Your task to perform on an android device: Add "usb-a" to the cart on amazon, then select checkout. Image 0: 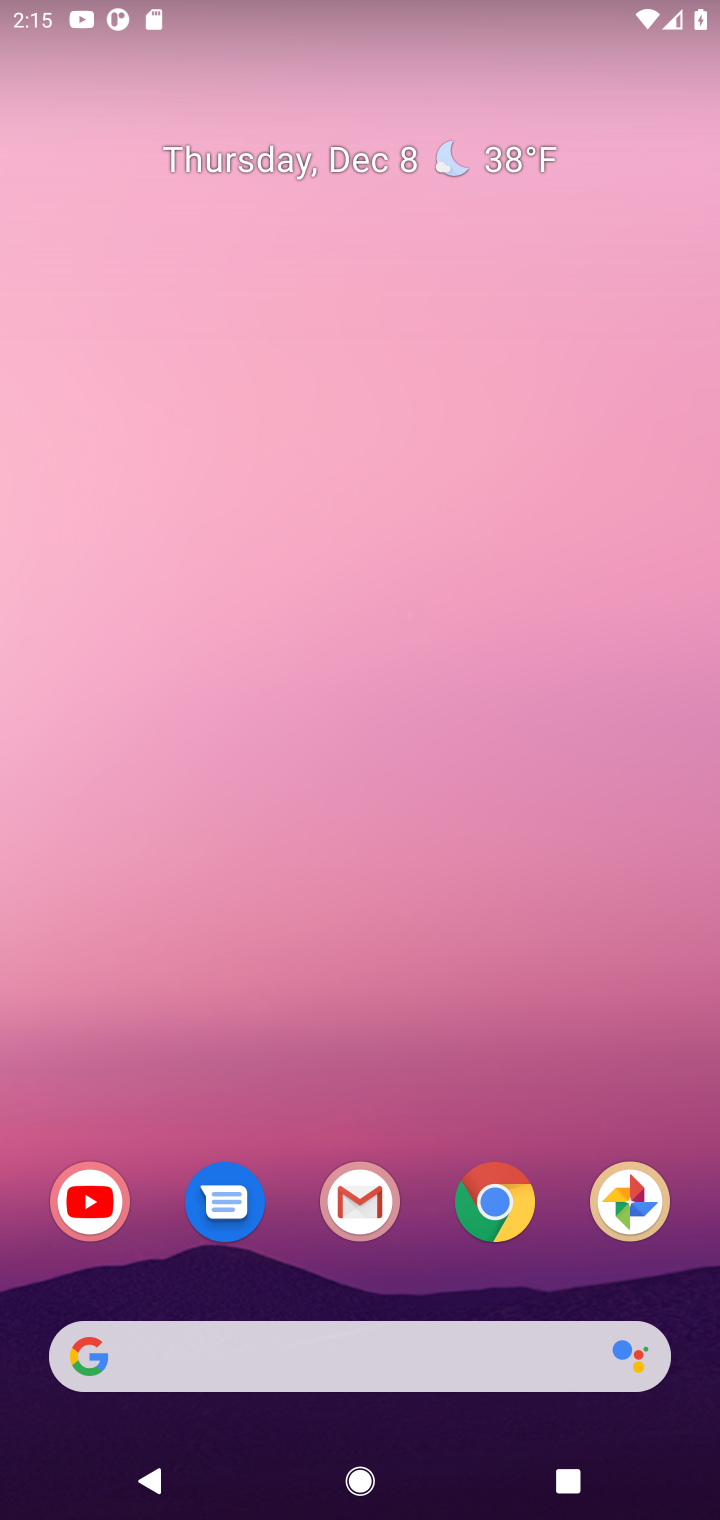
Step 0: click (503, 1195)
Your task to perform on an android device: Add "usb-a" to the cart on amazon, then select checkout. Image 1: 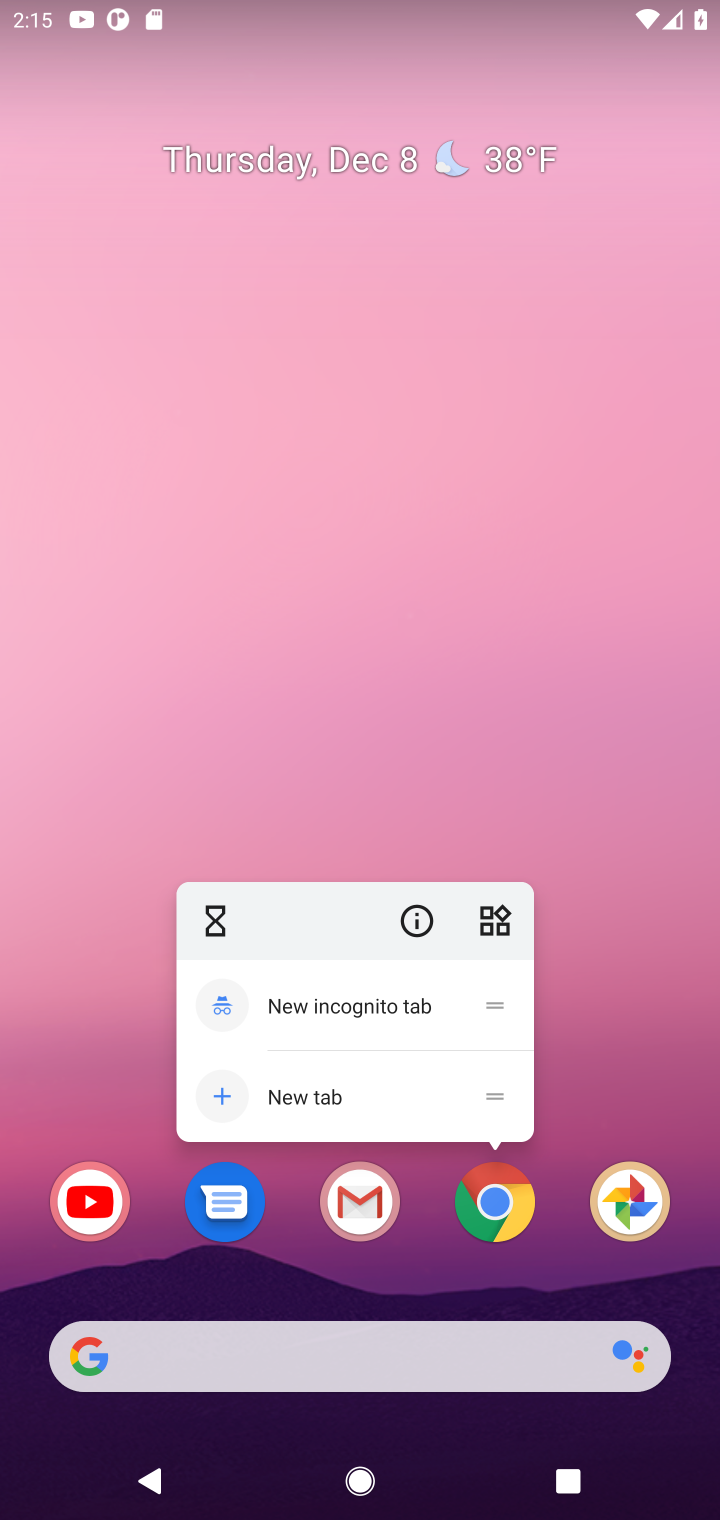
Step 1: click (503, 1195)
Your task to perform on an android device: Add "usb-a" to the cart on amazon, then select checkout. Image 2: 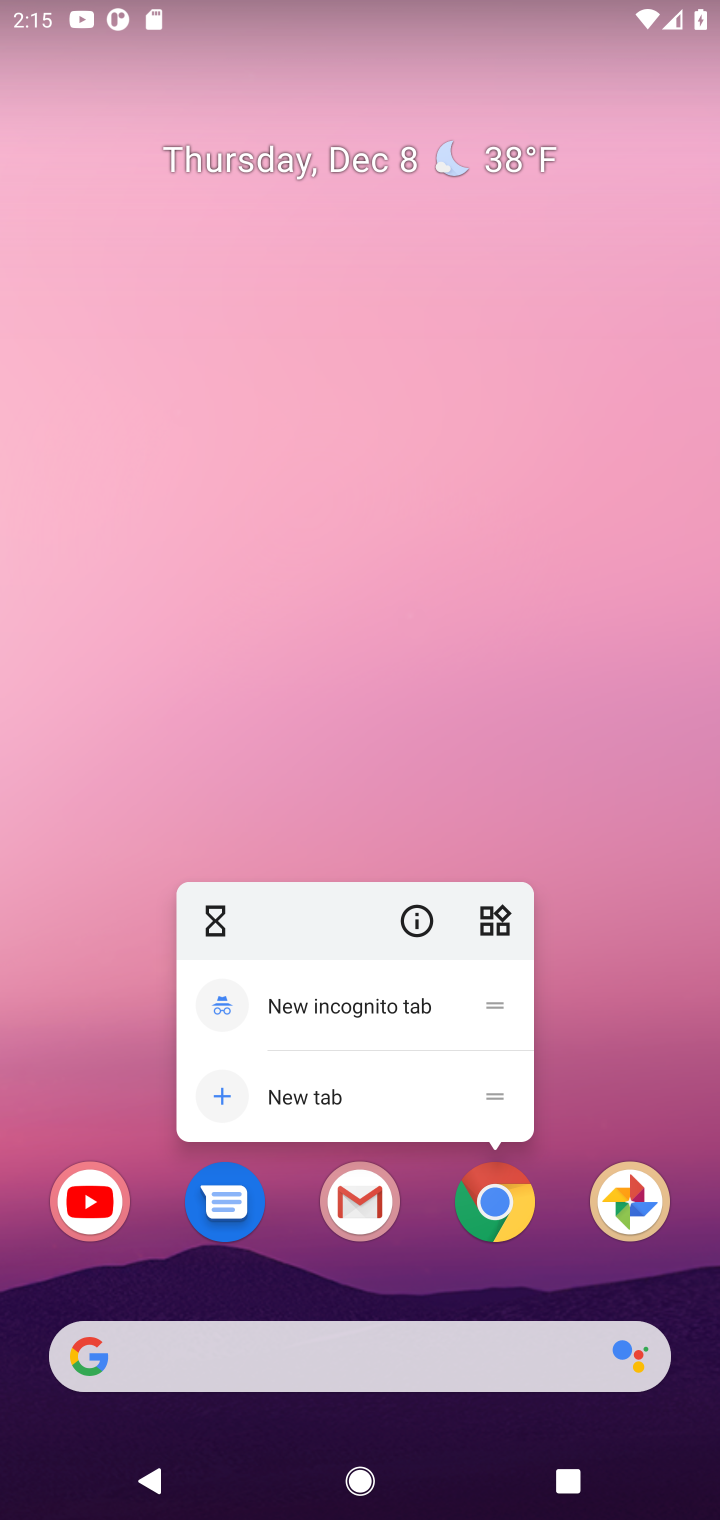
Step 2: click (503, 1195)
Your task to perform on an android device: Add "usb-a" to the cart on amazon, then select checkout. Image 3: 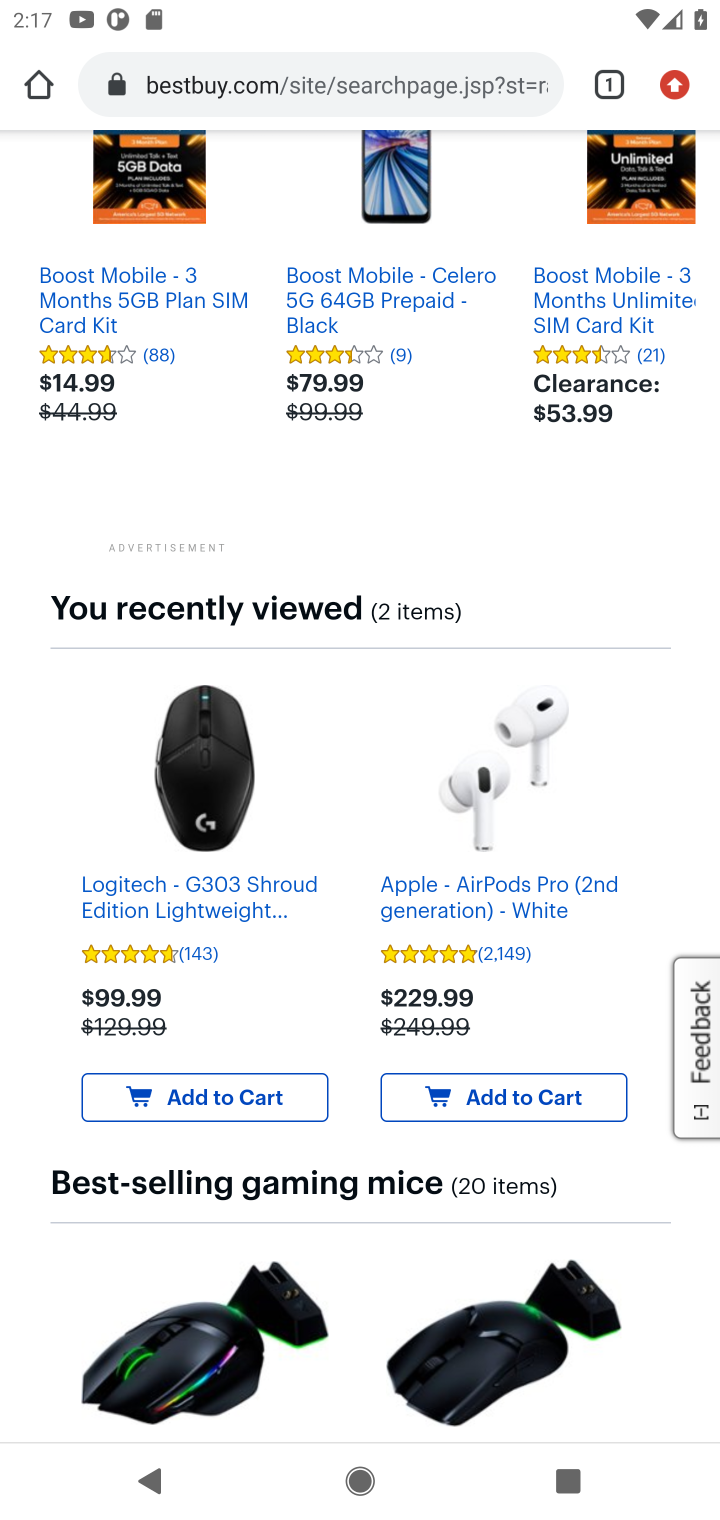
Step 3: click (418, 70)
Your task to perform on an android device: Add "usb-a" to the cart on amazon, then select checkout. Image 4: 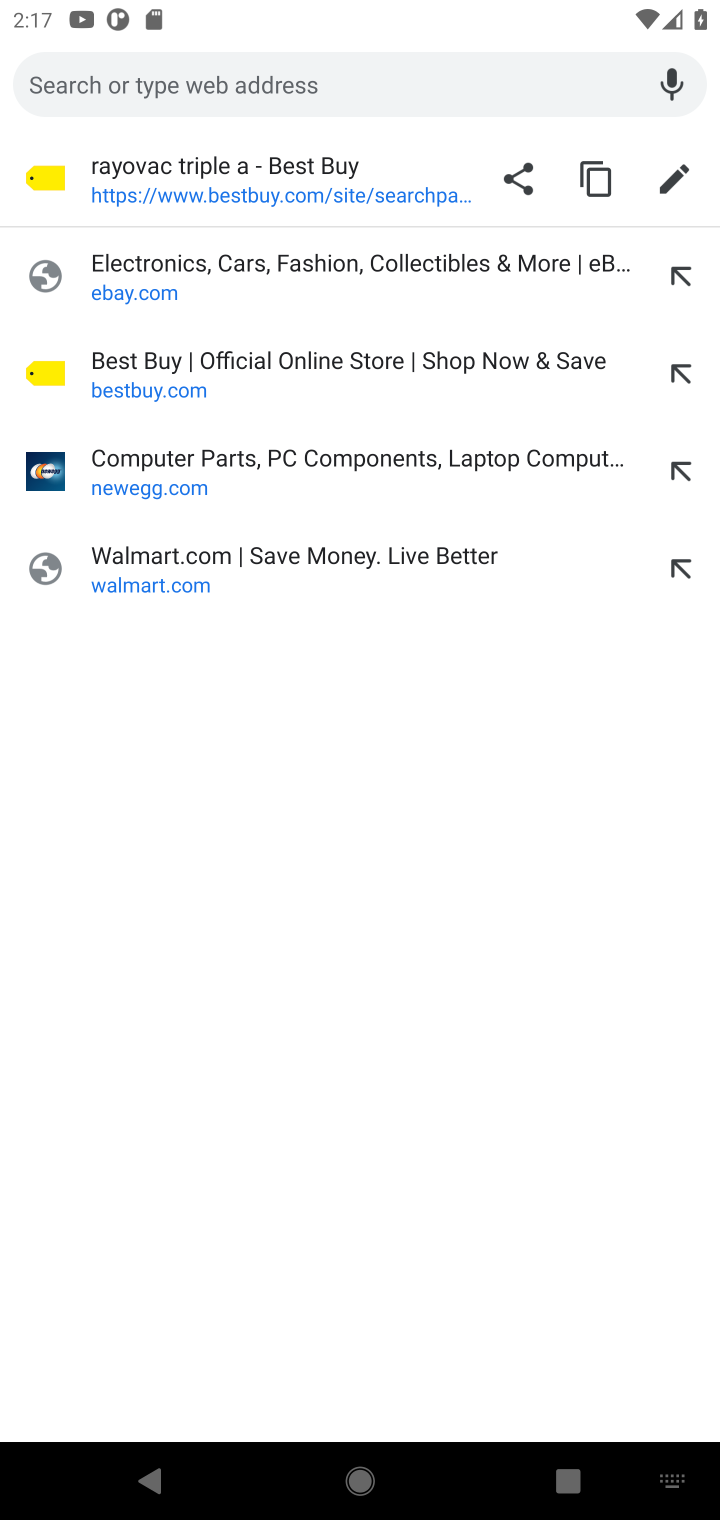
Step 4: press enter
Your task to perform on an android device: Add "usb-a" to the cart on amazon, then select checkout. Image 5: 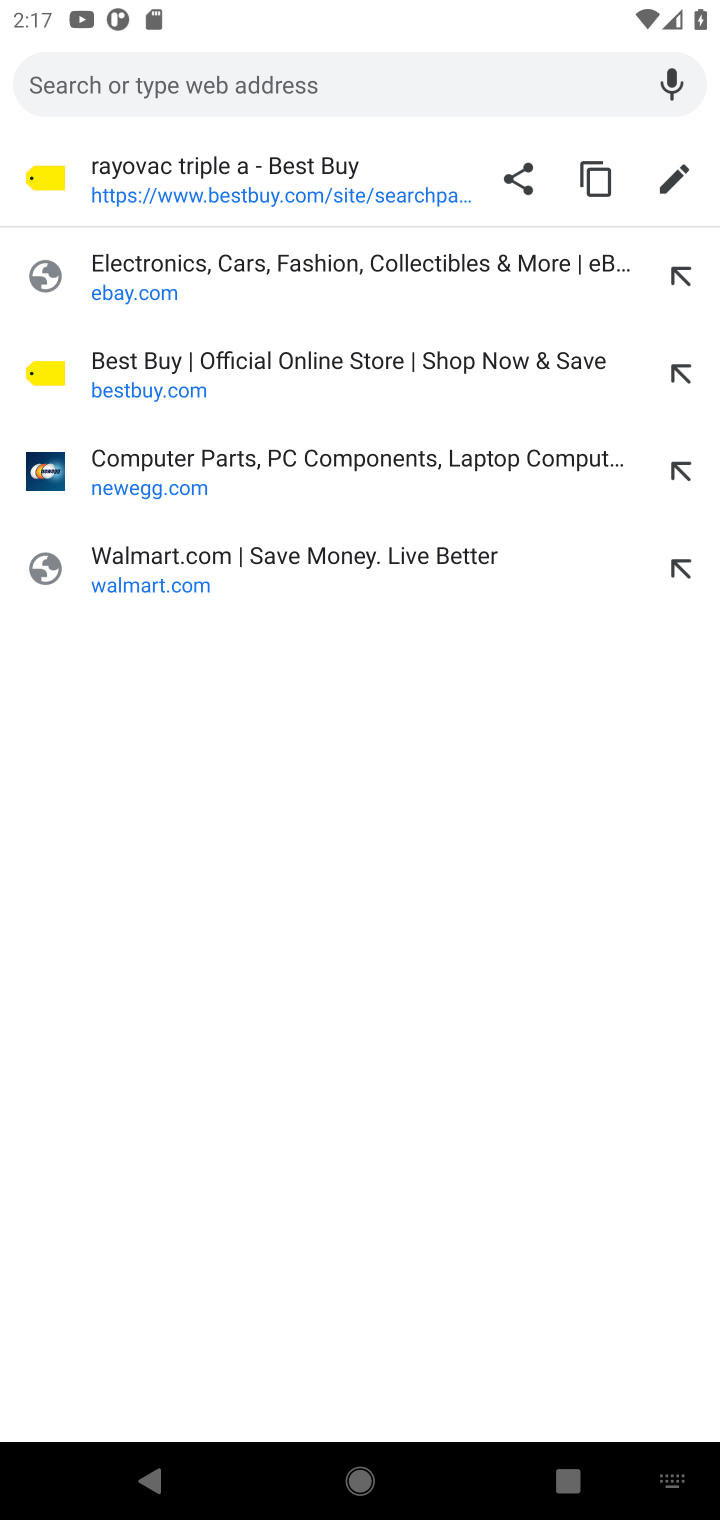
Step 5: type "amazon"
Your task to perform on an android device: Add "usb-a" to the cart on amazon, then select checkout. Image 6: 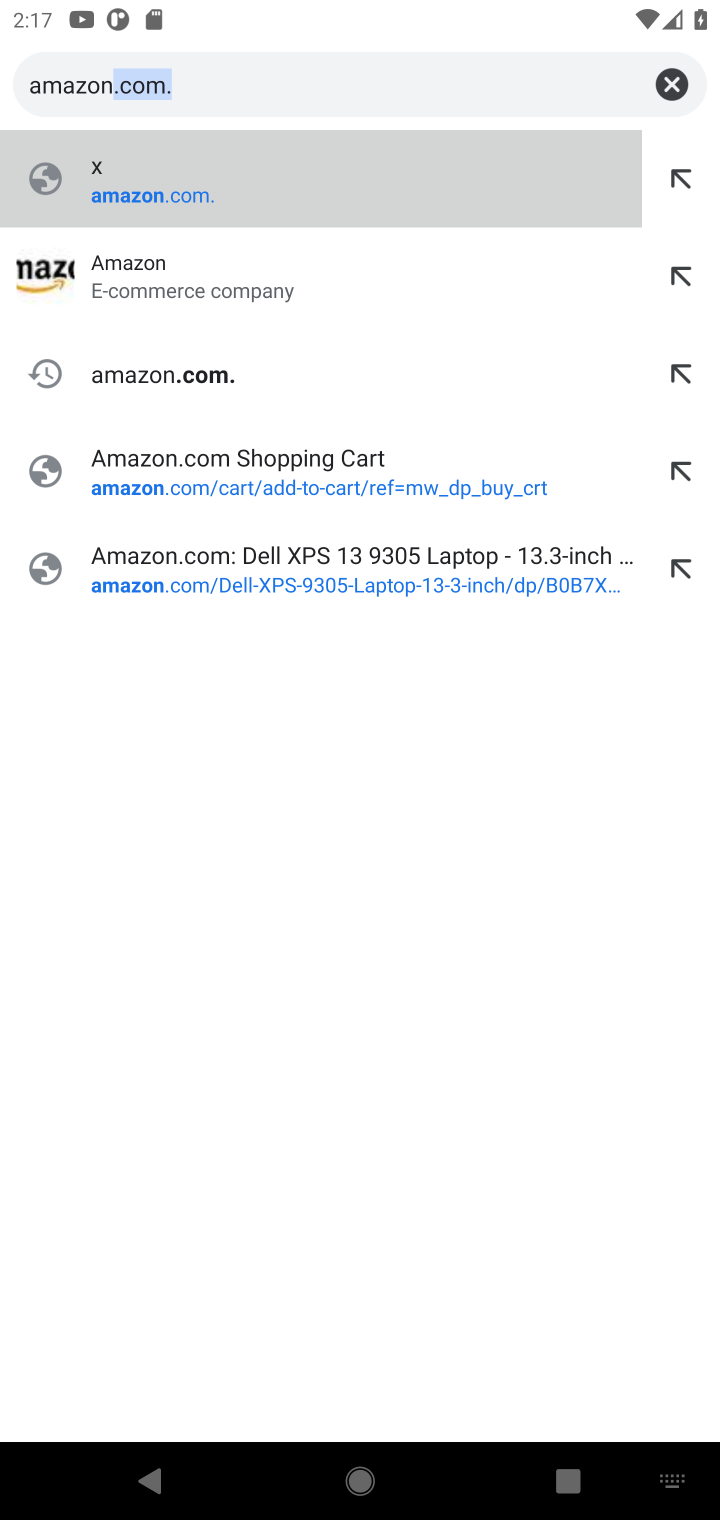
Step 6: click (455, 62)
Your task to perform on an android device: Add "usb-a" to the cart on amazon, then select checkout. Image 7: 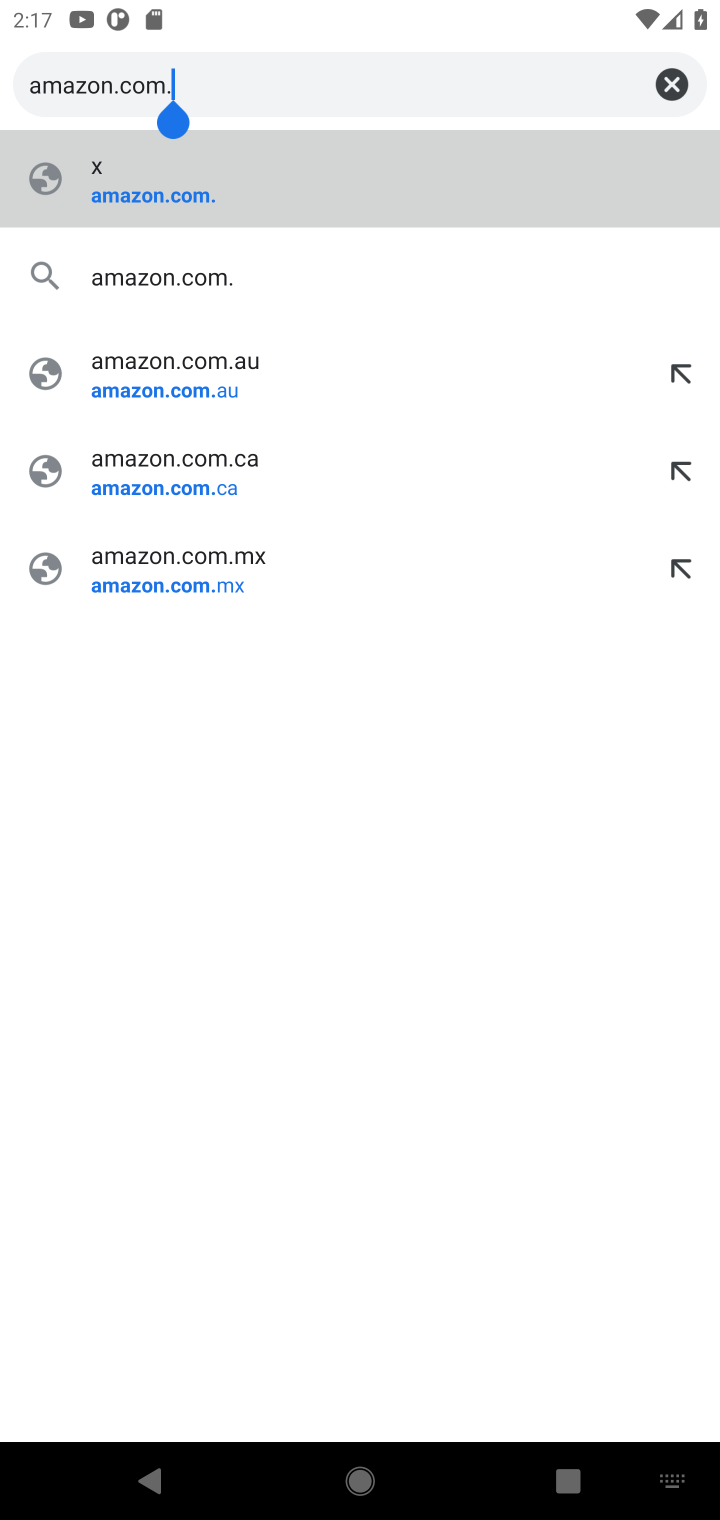
Step 7: click (195, 492)
Your task to perform on an android device: Add "usb-a" to the cart on amazon, then select checkout. Image 8: 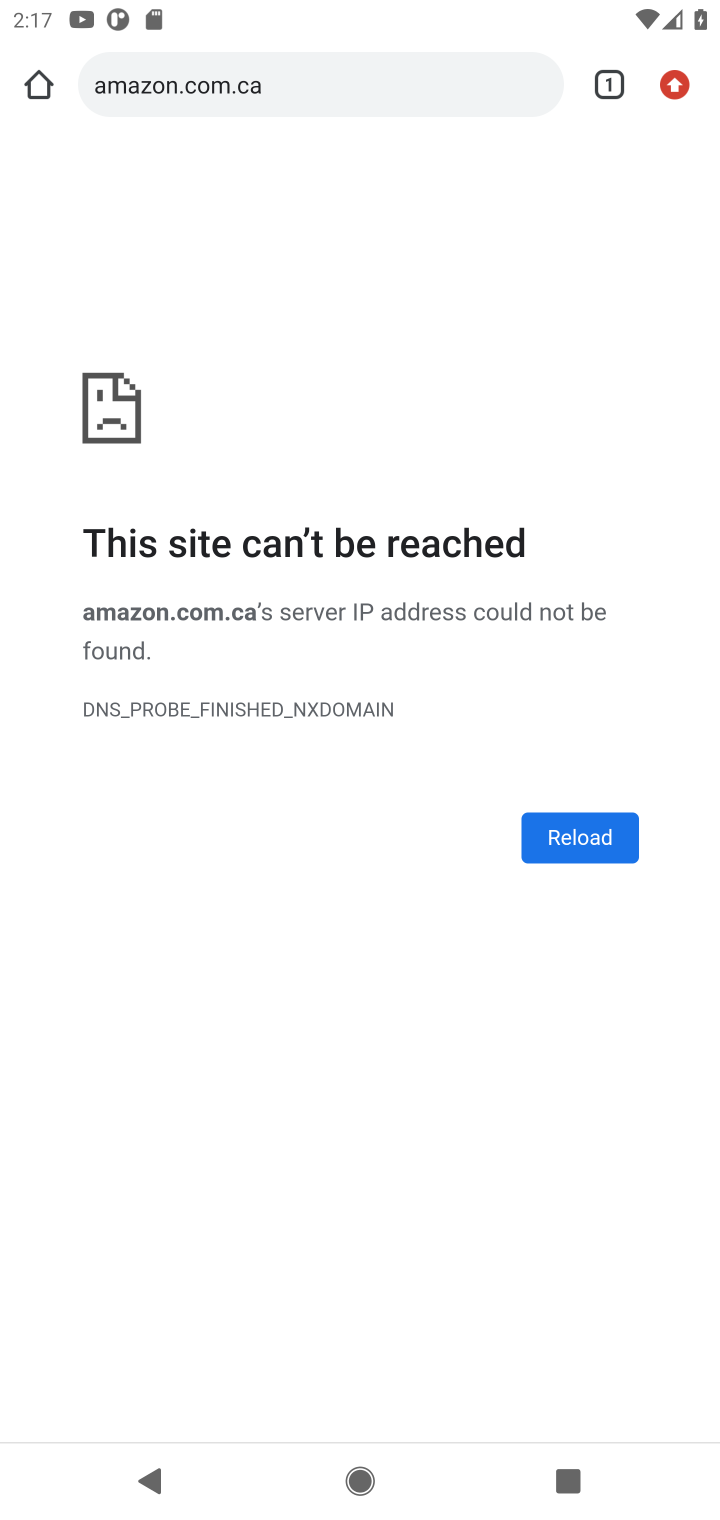
Step 8: press back button
Your task to perform on an android device: Add "usb-a" to the cart on amazon, then select checkout. Image 9: 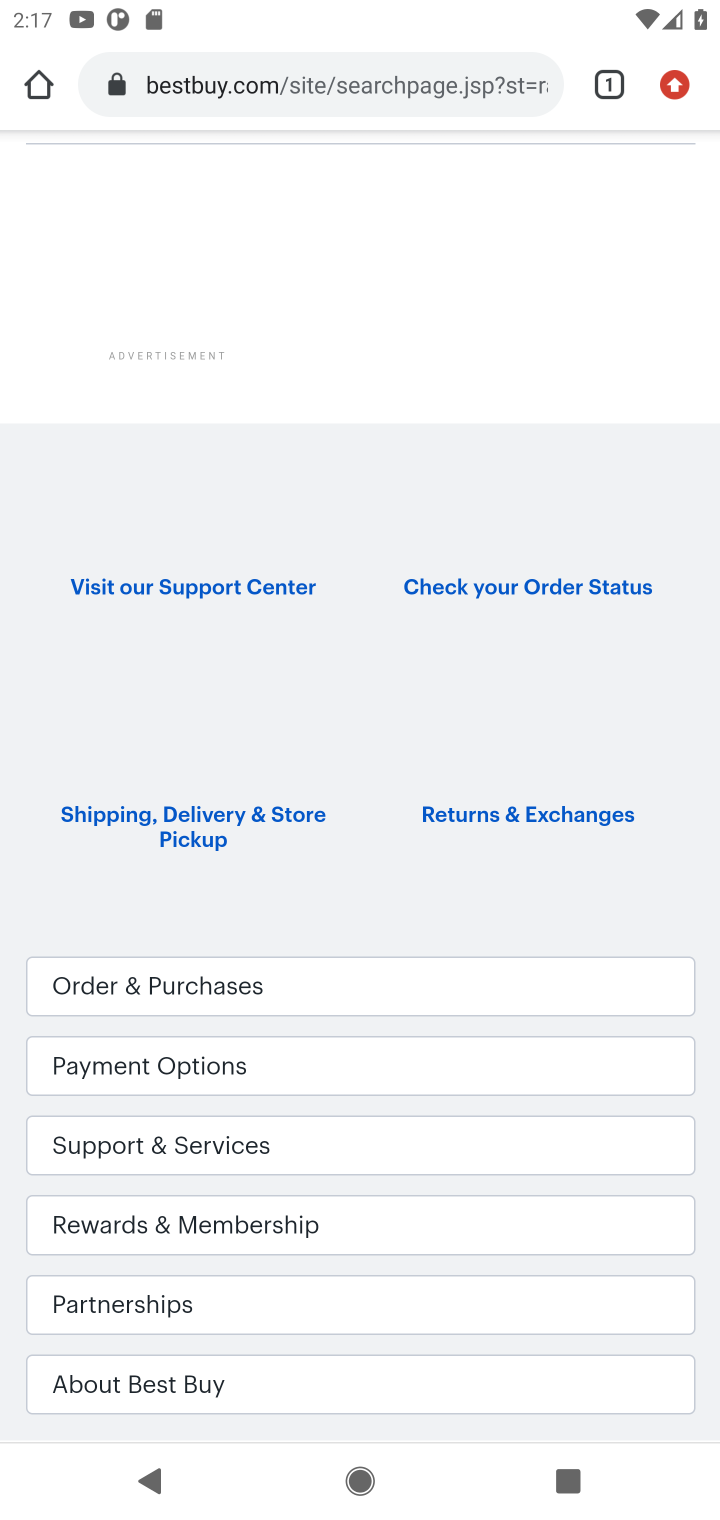
Step 9: click (368, 82)
Your task to perform on an android device: Add "usb-a" to the cart on amazon, then select checkout. Image 10: 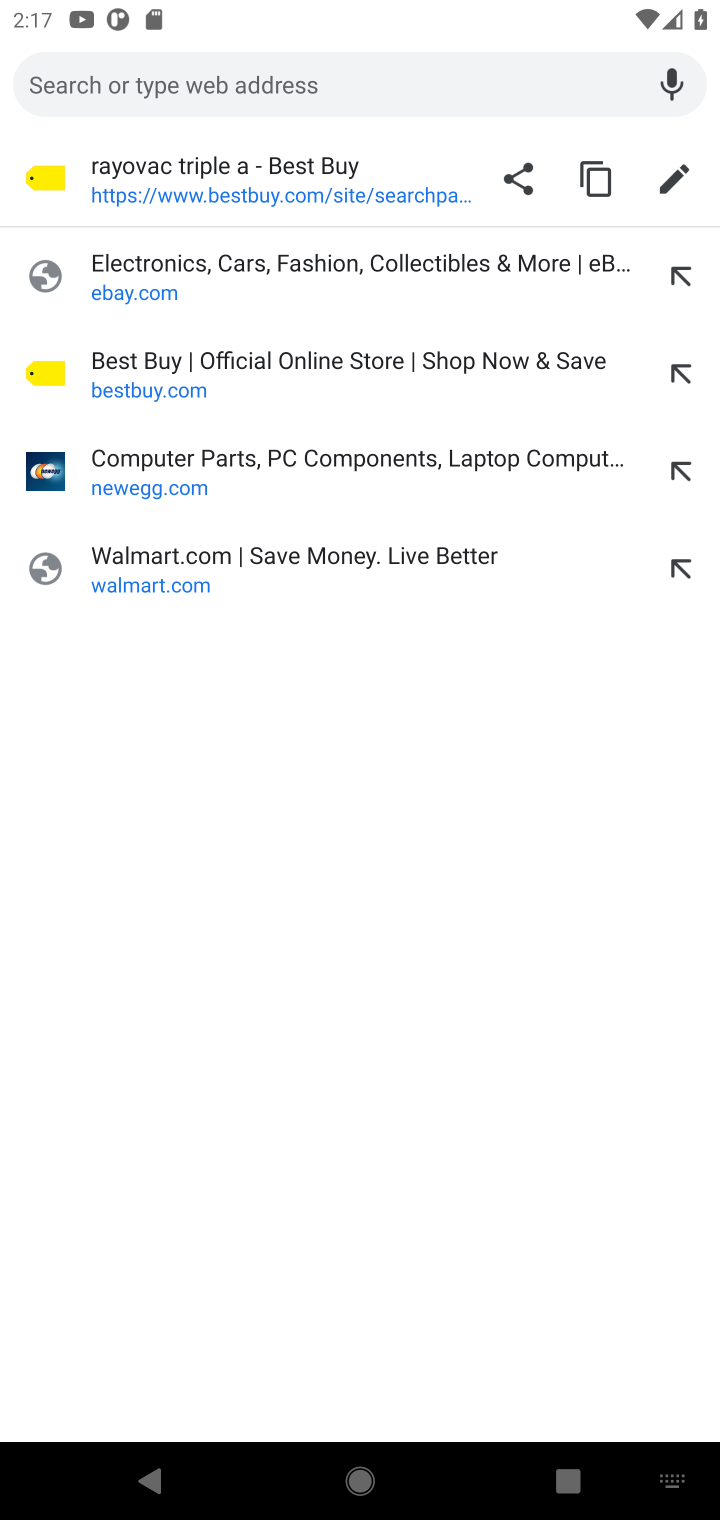
Step 10: type "amazon.com"
Your task to perform on an android device: Add "usb-a" to the cart on amazon, then select checkout. Image 11: 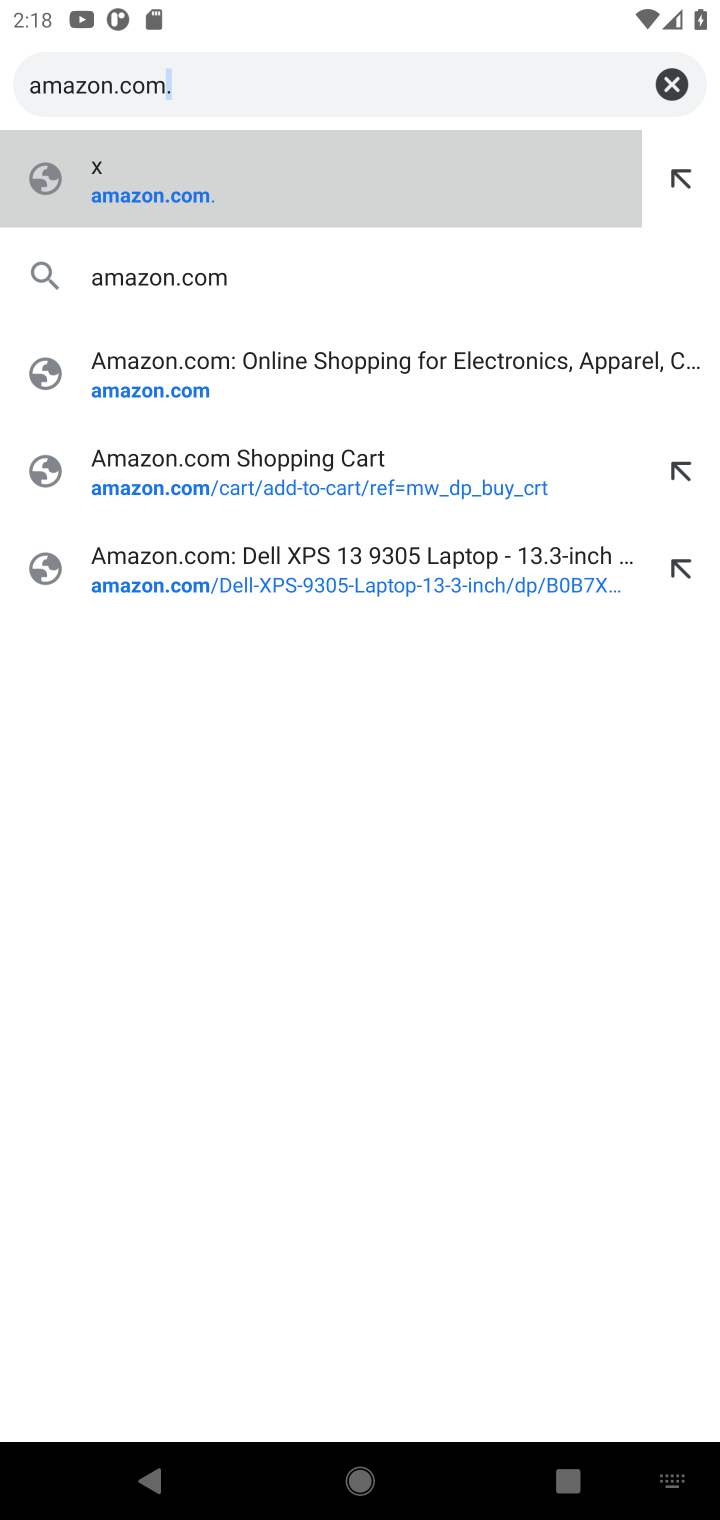
Step 11: click (208, 278)
Your task to perform on an android device: Add "usb-a" to the cart on amazon, then select checkout. Image 12: 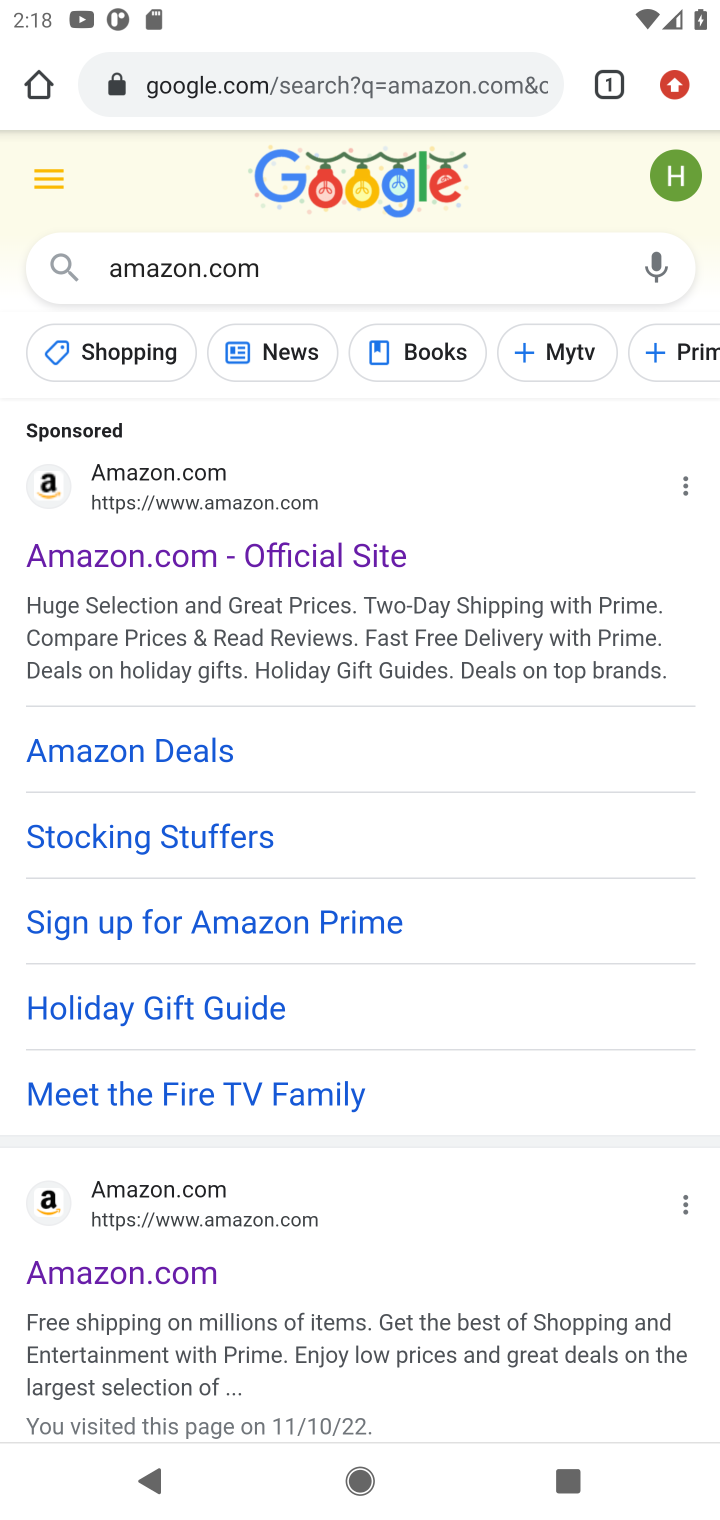
Step 12: click (257, 1221)
Your task to perform on an android device: Add "usb-a" to the cart on amazon, then select checkout. Image 13: 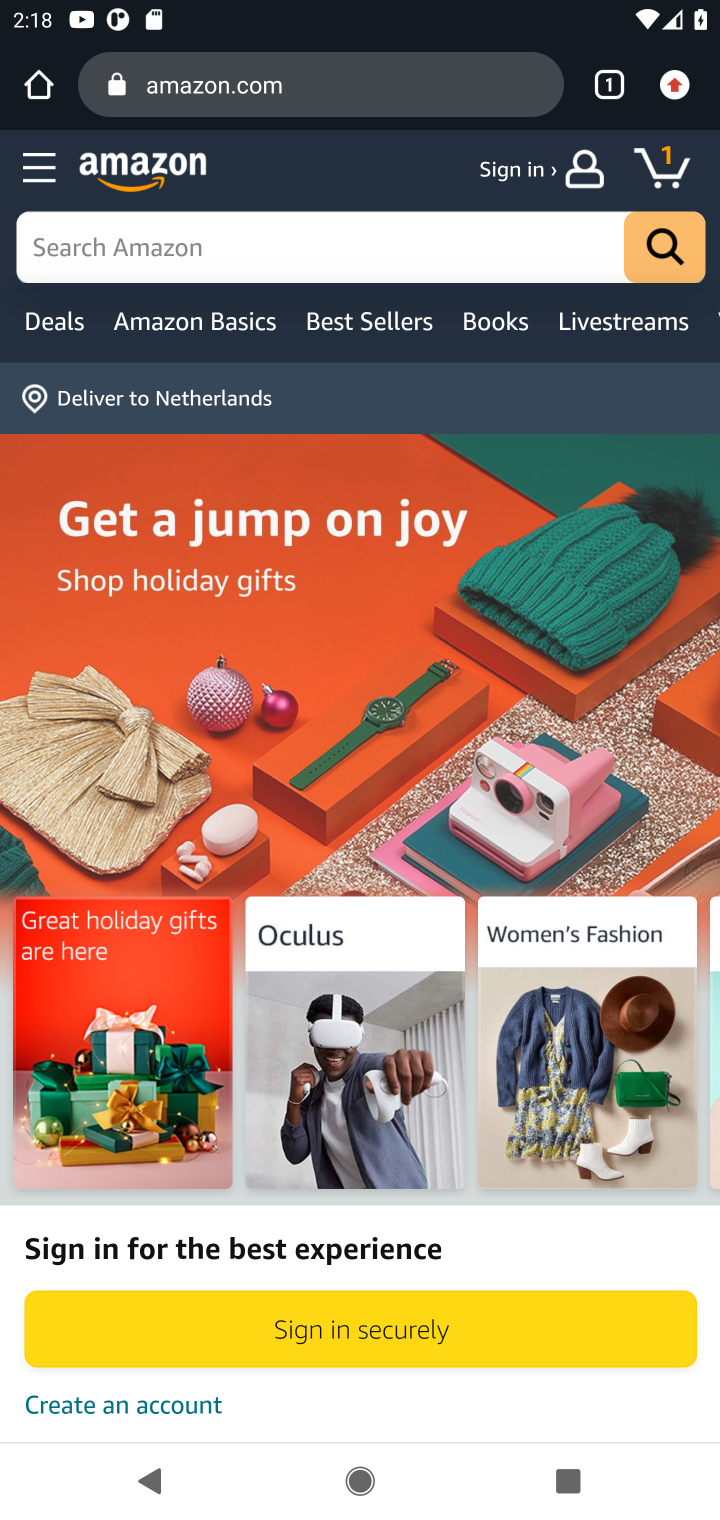
Step 13: click (323, 250)
Your task to perform on an android device: Add "usb-a" to the cart on amazon, then select checkout. Image 14: 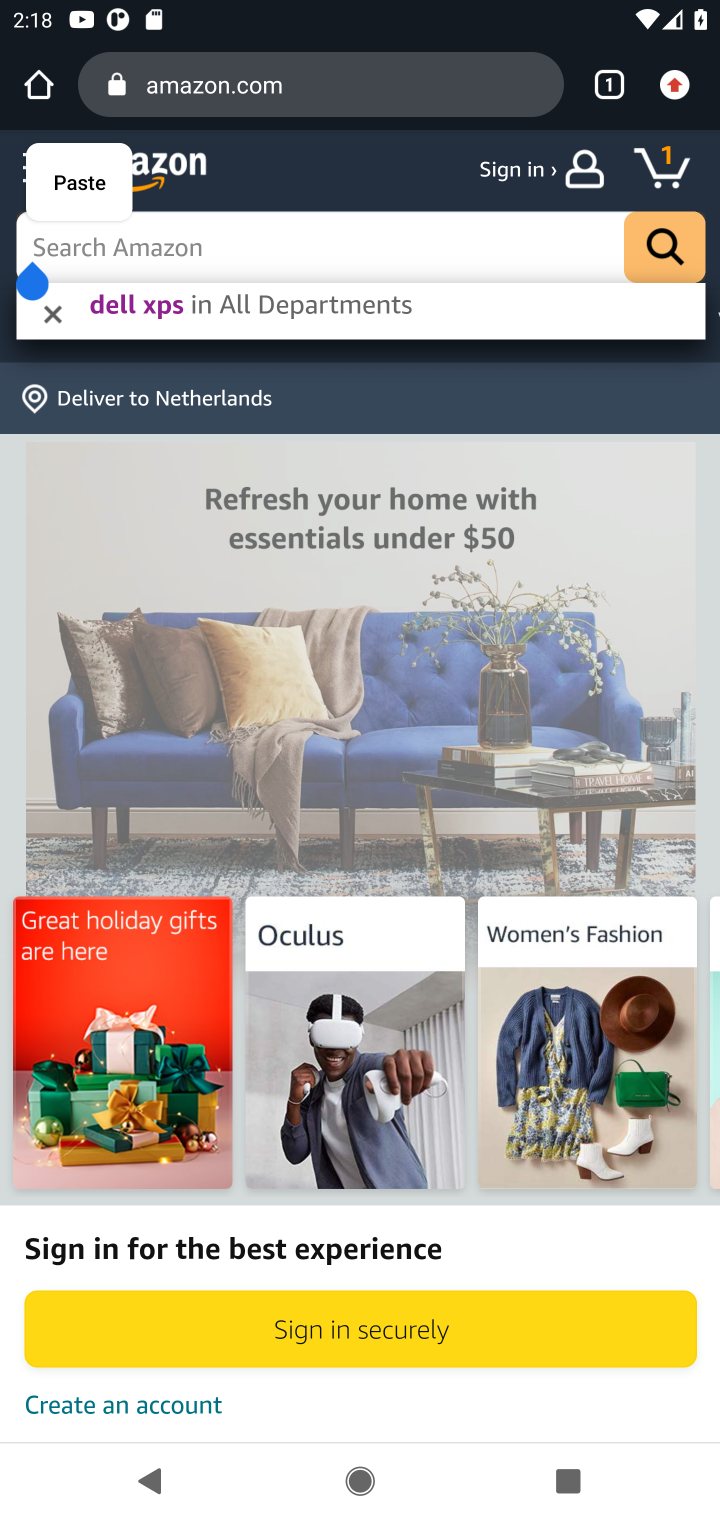
Step 14: press enter
Your task to perform on an android device: Add "usb-a" to the cart on amazon, then select checkout. Image 15: 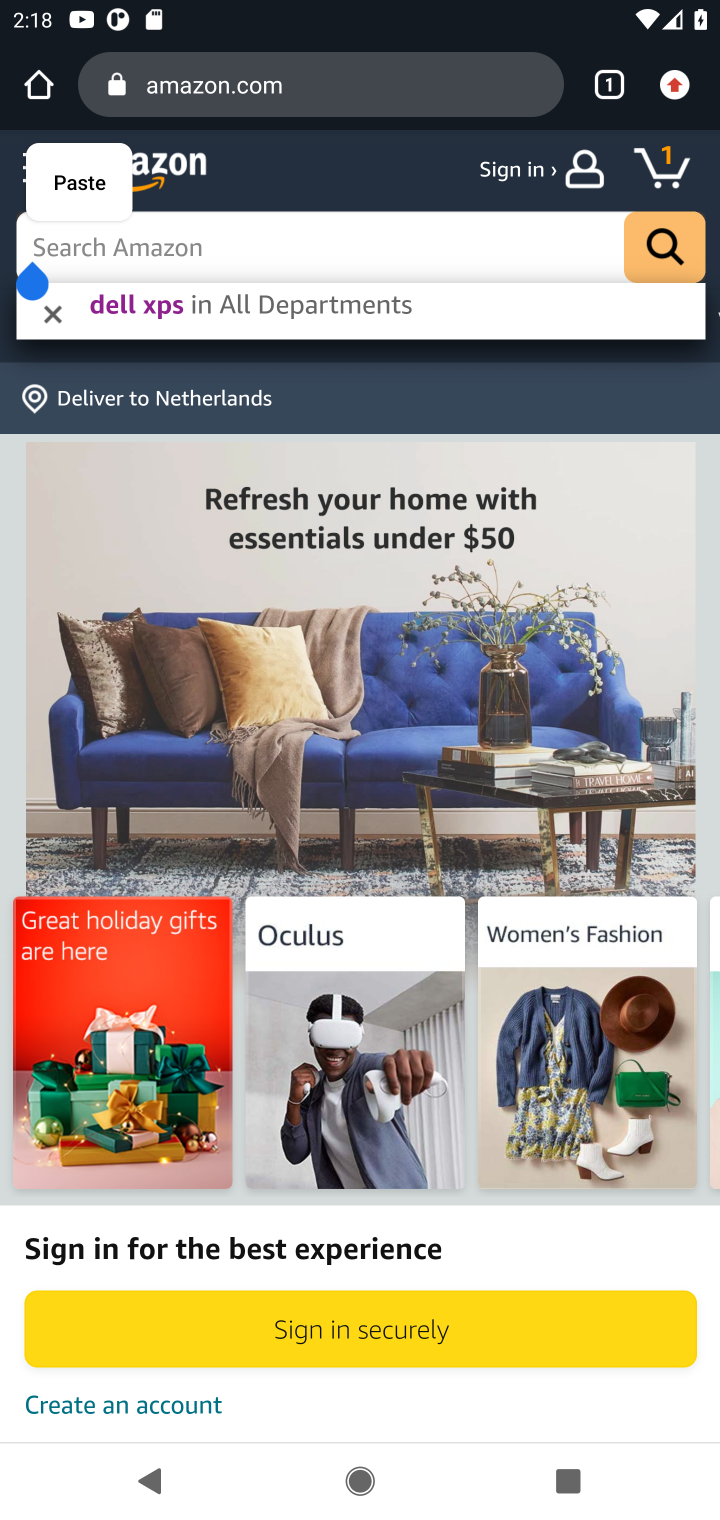
Step 15: type "usb-a"
Your task to perform on an android device: Add "usb-a" to the cart on amazon, then select checkout. Image 16: 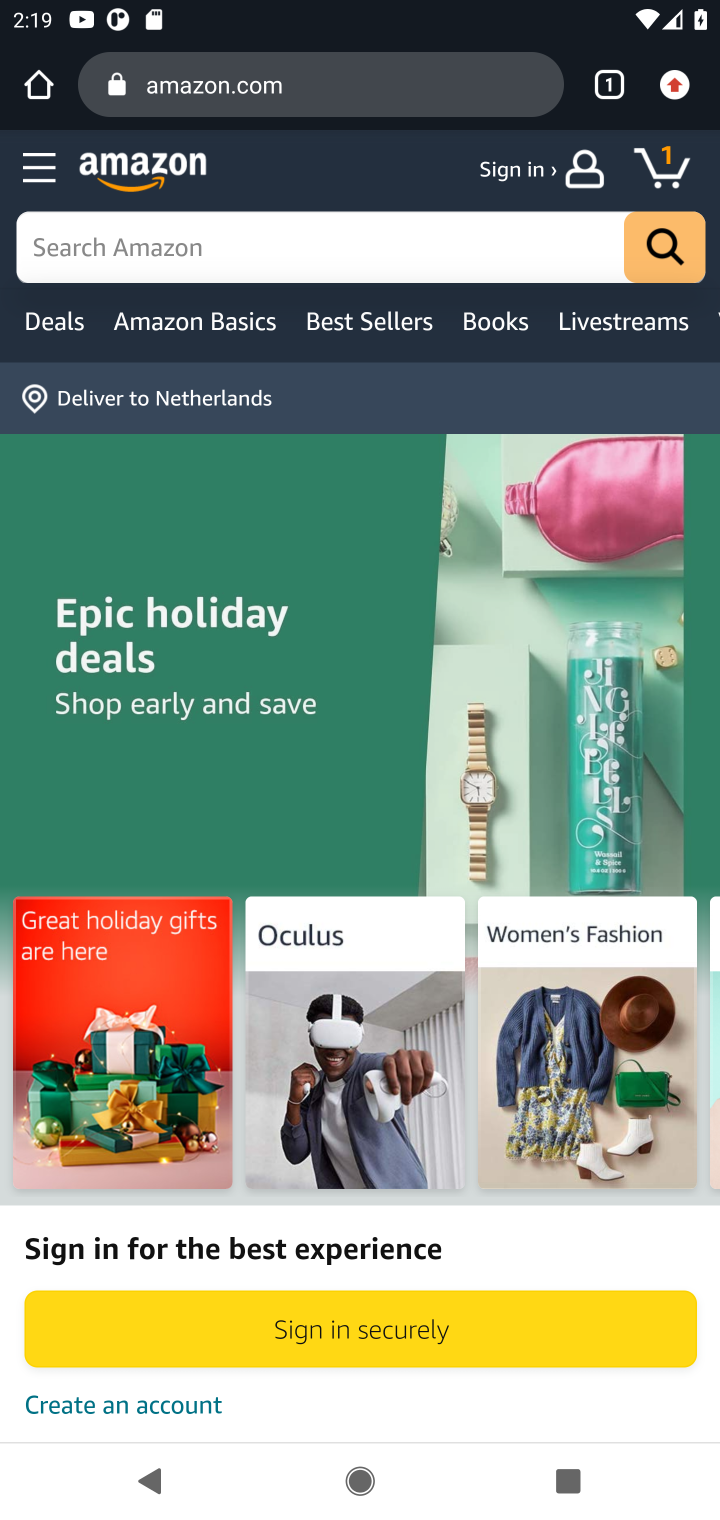
Step 16: click (331, 229)
Your task to perform on an android device: Add "usb-a" to the cart on amazon, then select checkout. Image 17: 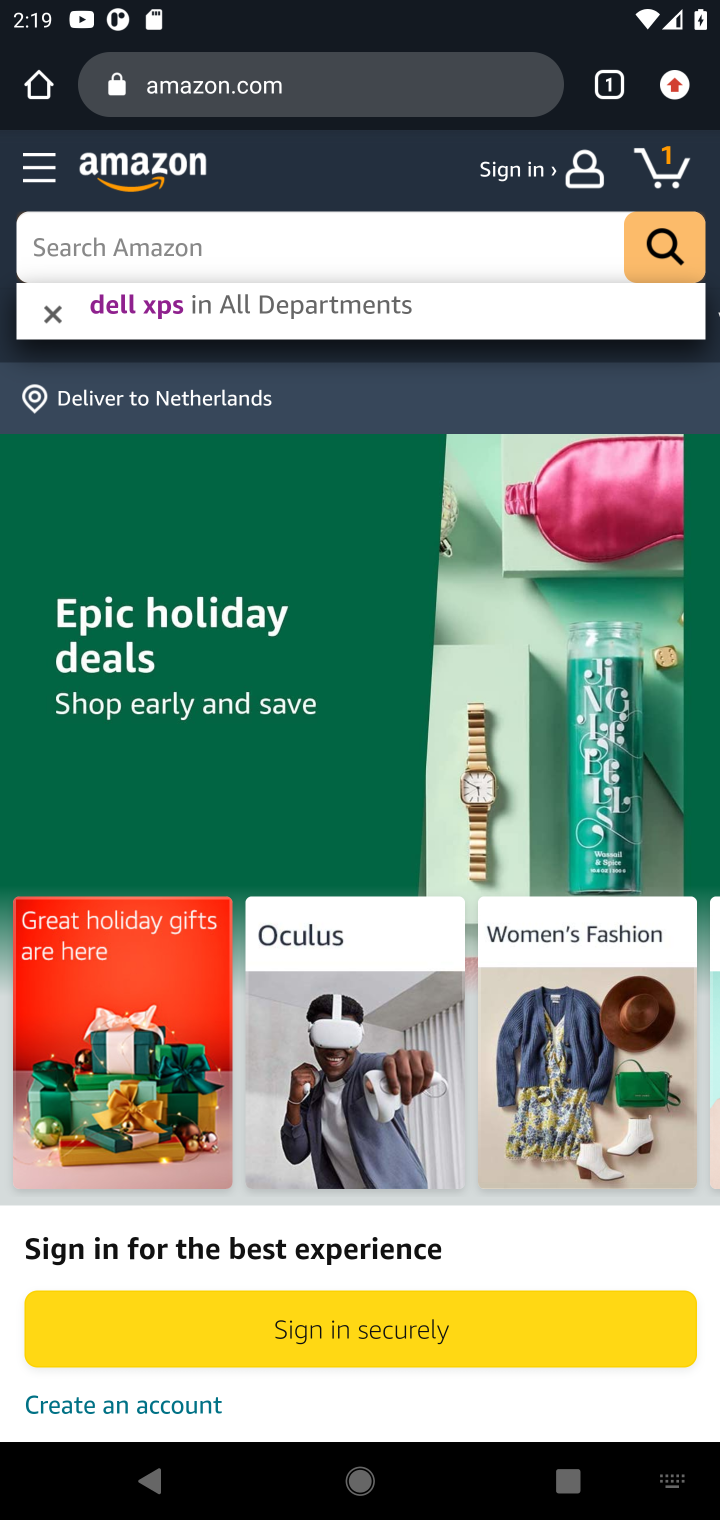
Step 17: type "usb-a"
Your task to perform on an android device: Add "usb-a" to the cart on amazon, then select checkout. Image 18: 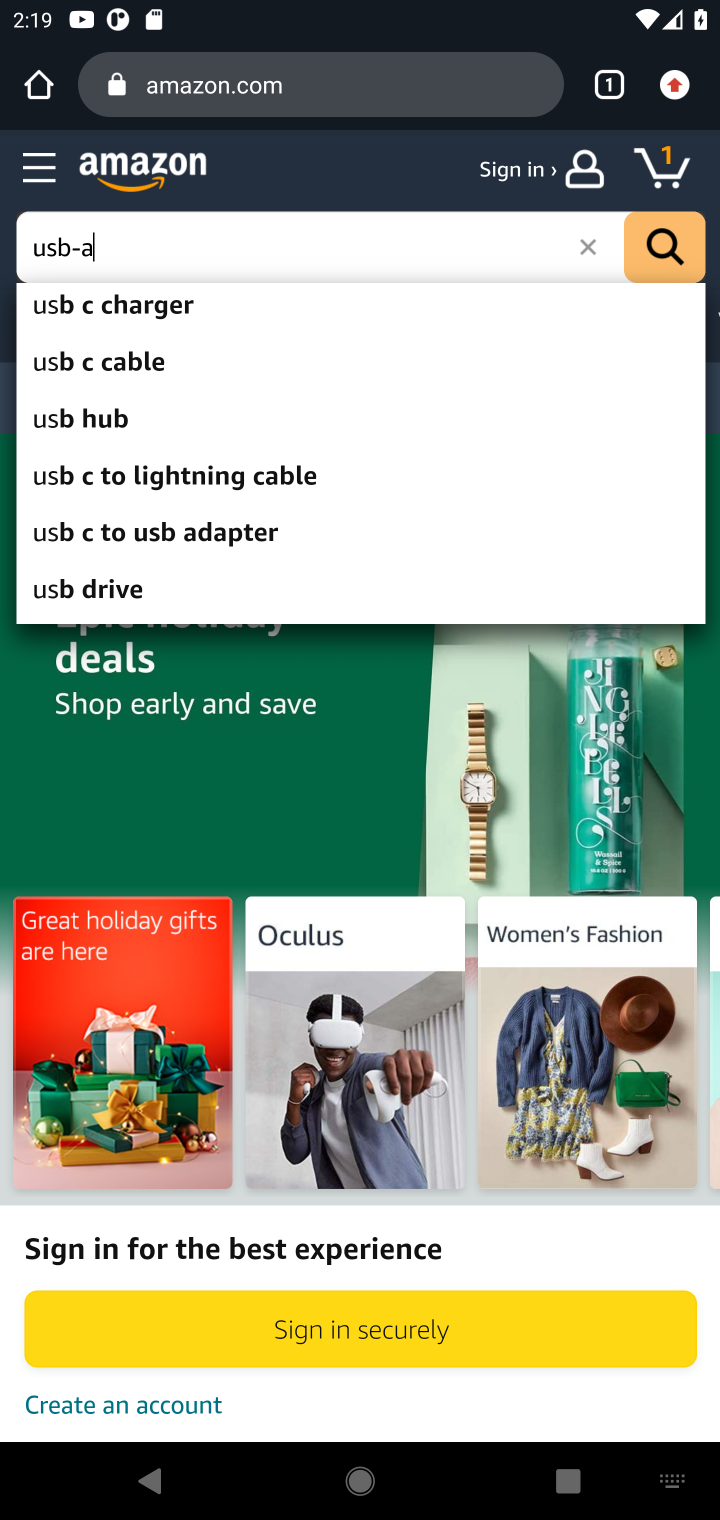
Step 18: press enter
Your task to perform on an android device: Add "usb-a" to the cart on amazon, then select checkout. Image 19: 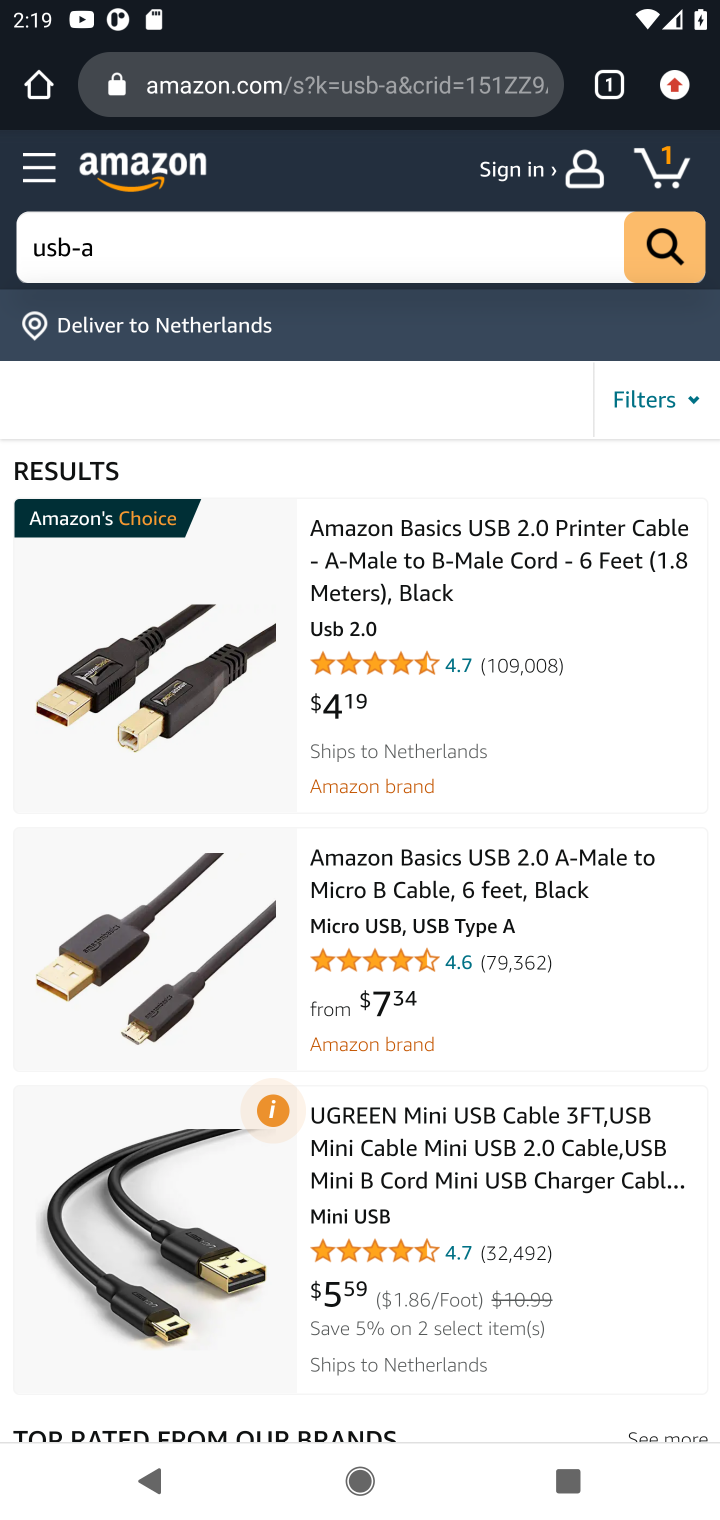
Step 19: drag from (488, 1101) to (546, 537)
Your task to perform on an android device: Add "usb-a" to the cart on amazon, then select checkout. Image 20: 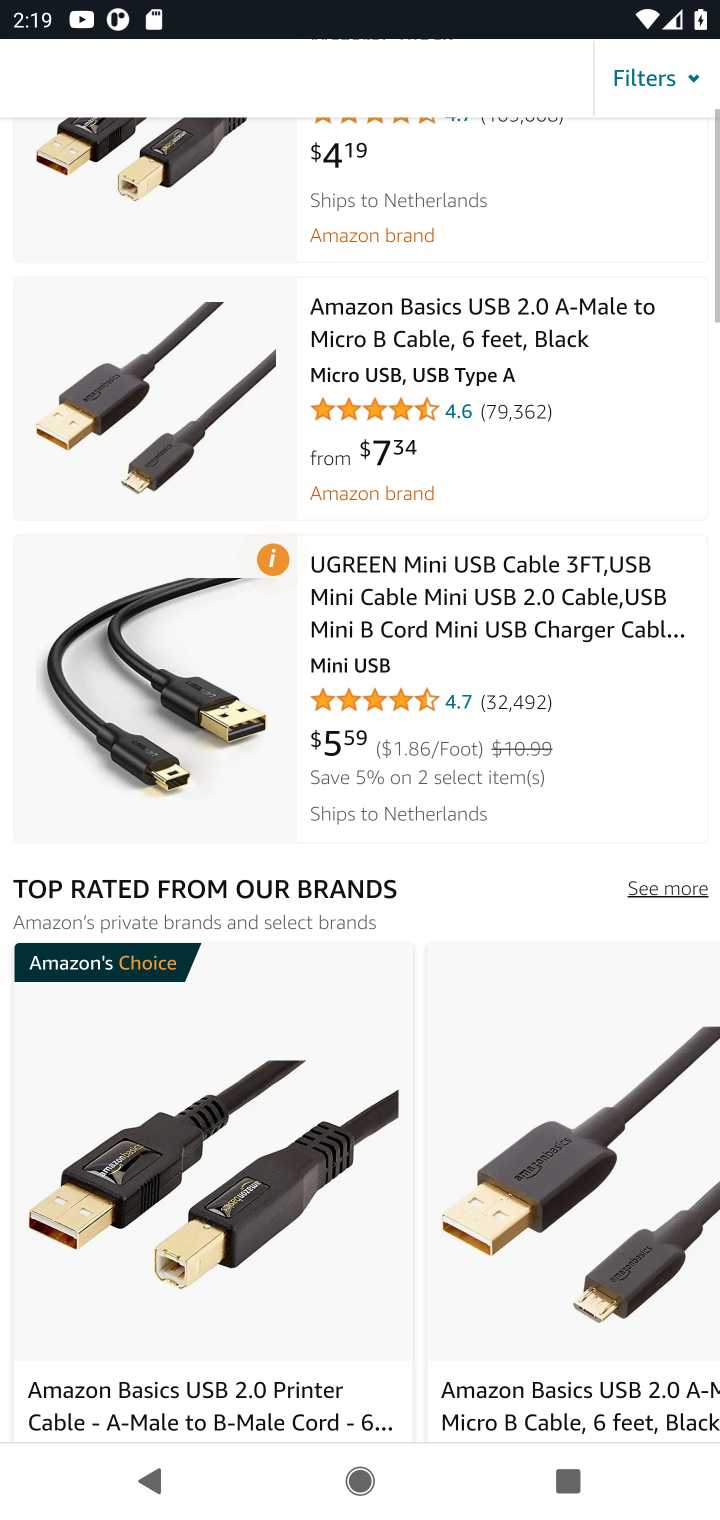
Step 20: drag from (440, 991) to (527, 377)
Your task to perform on an android device: Add "usb-a" to the cart on amazon, then select checkout. Image 21: 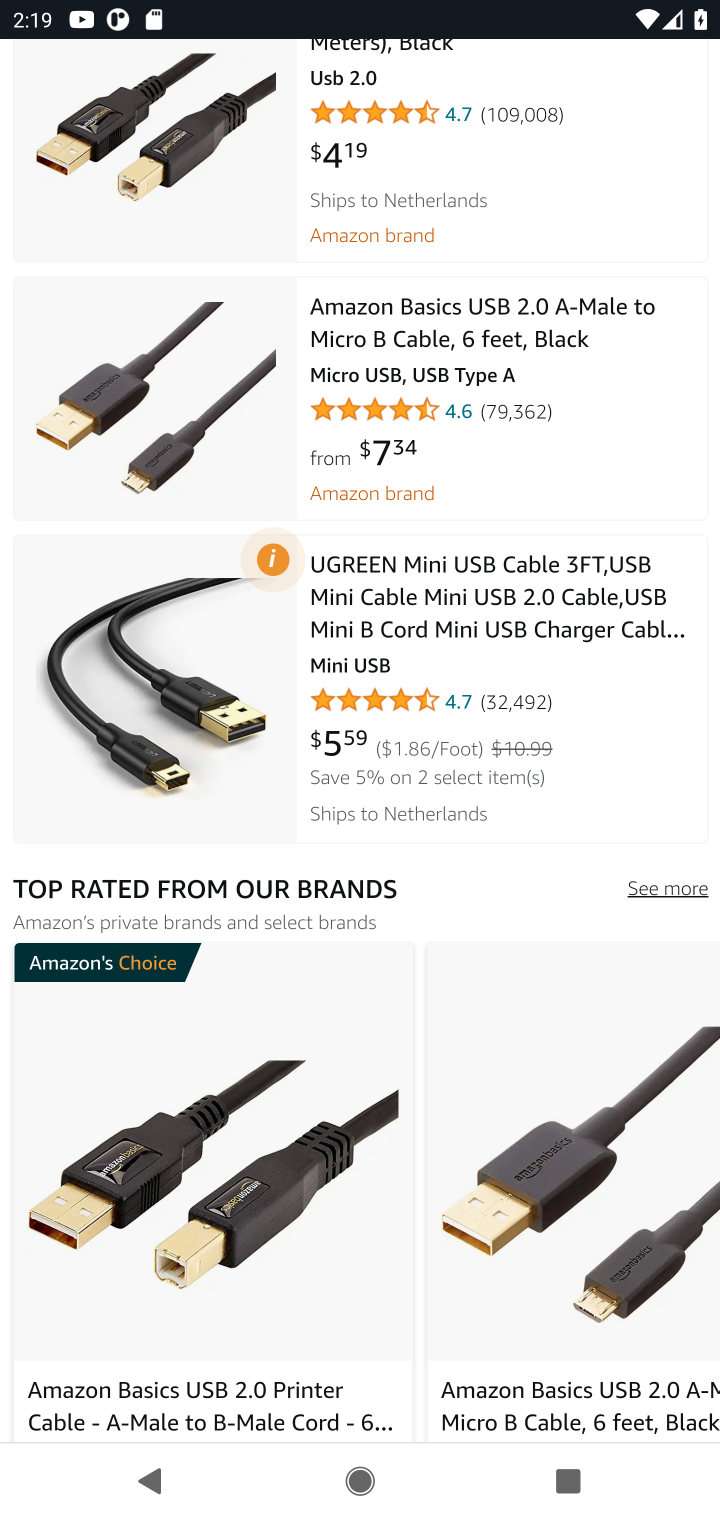
Step 21: drag from (528, 561) to (594, 1300)
Your task to perform on an android device: Add "usb-a" to the cart on amazon, then select checkout. Image 22: 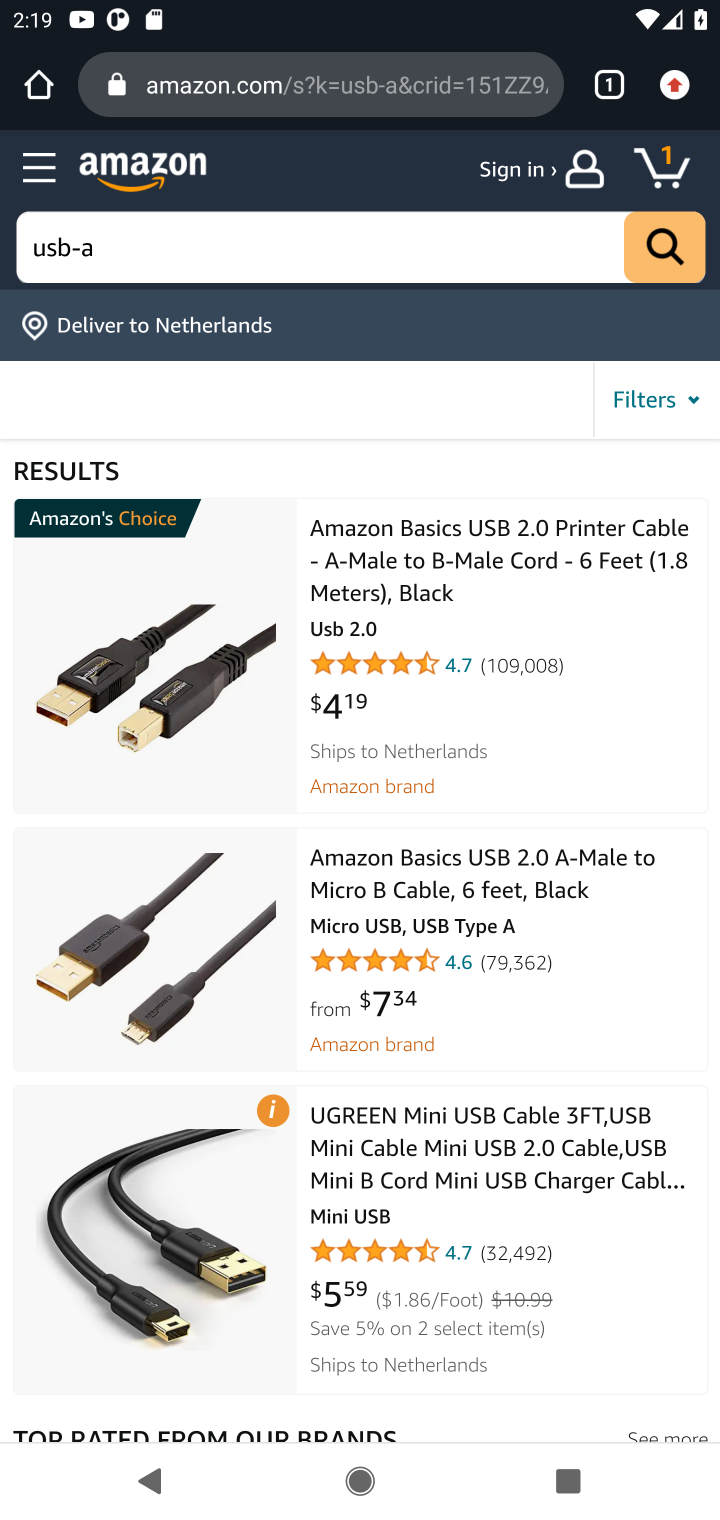
Step 22: click (153, 654)
Your task to perform on an android device: Add "usb-a" to the cart on amazon, then select checkout. Image 23: 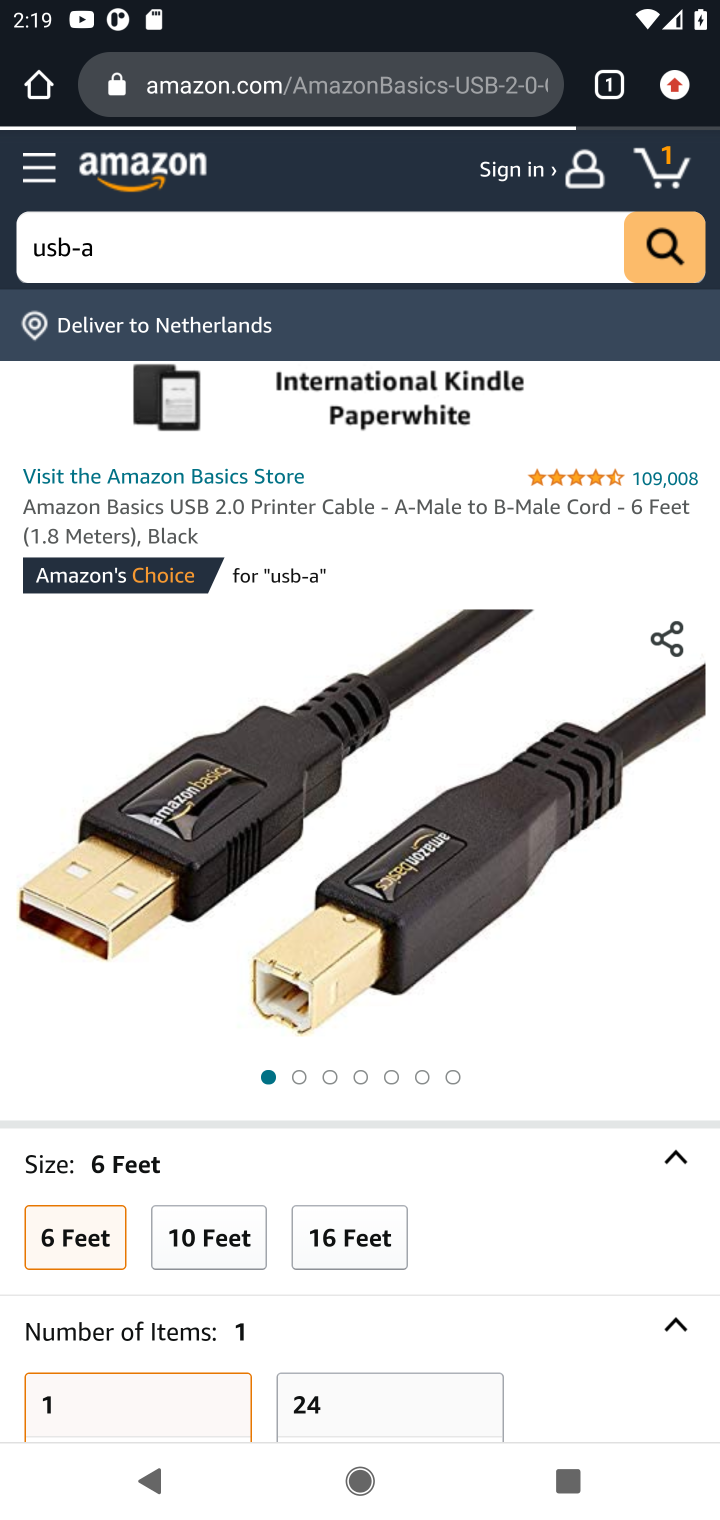
Step 23: drag from (557, 1206) to (703, 261)
Your task to perform on an android device: Add "usb-a" to the cart on amazon, then select checkout. Image 24: 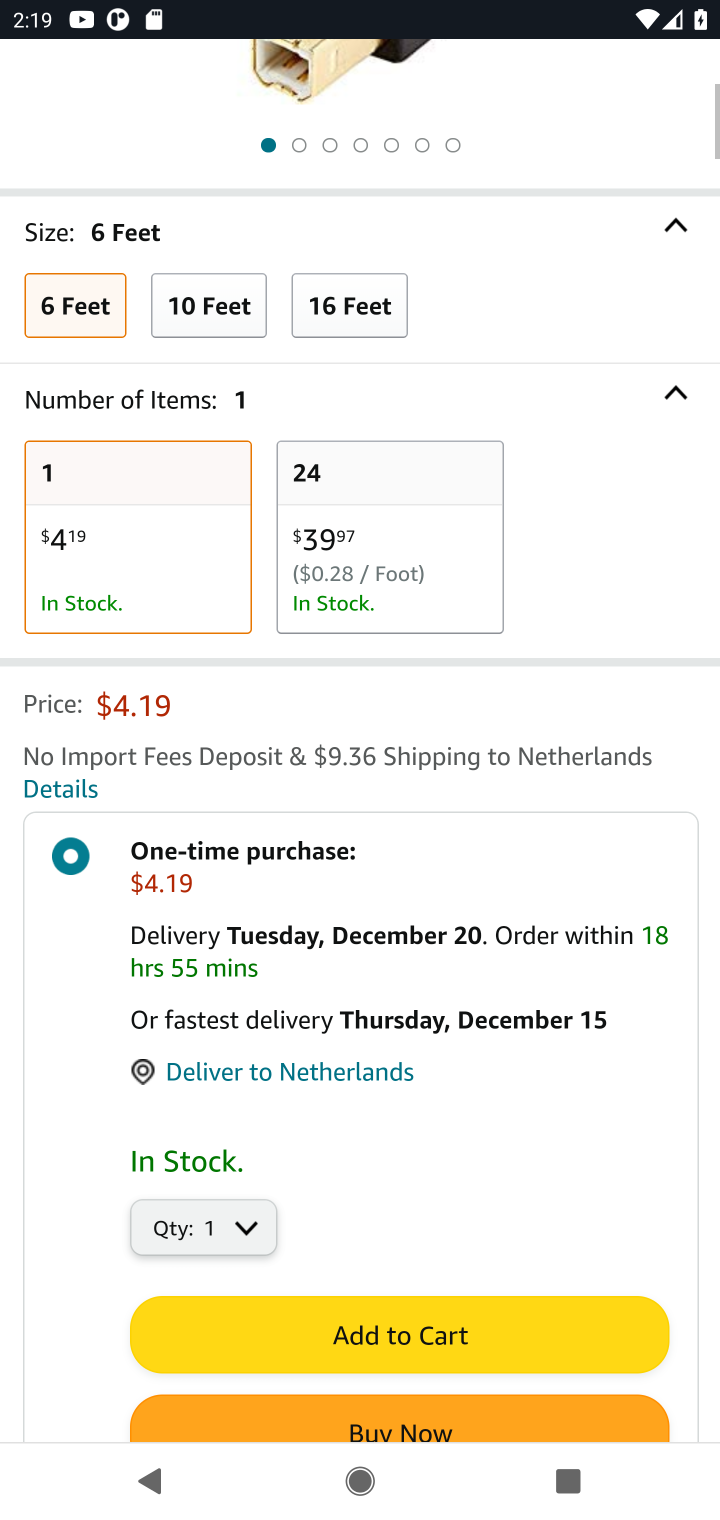
Step 24: drag from (492, 1018) to (543, 820)
Your task to perform on an android device: Add "usb-a" to the cart on amazon, then select checkout. Image 25: 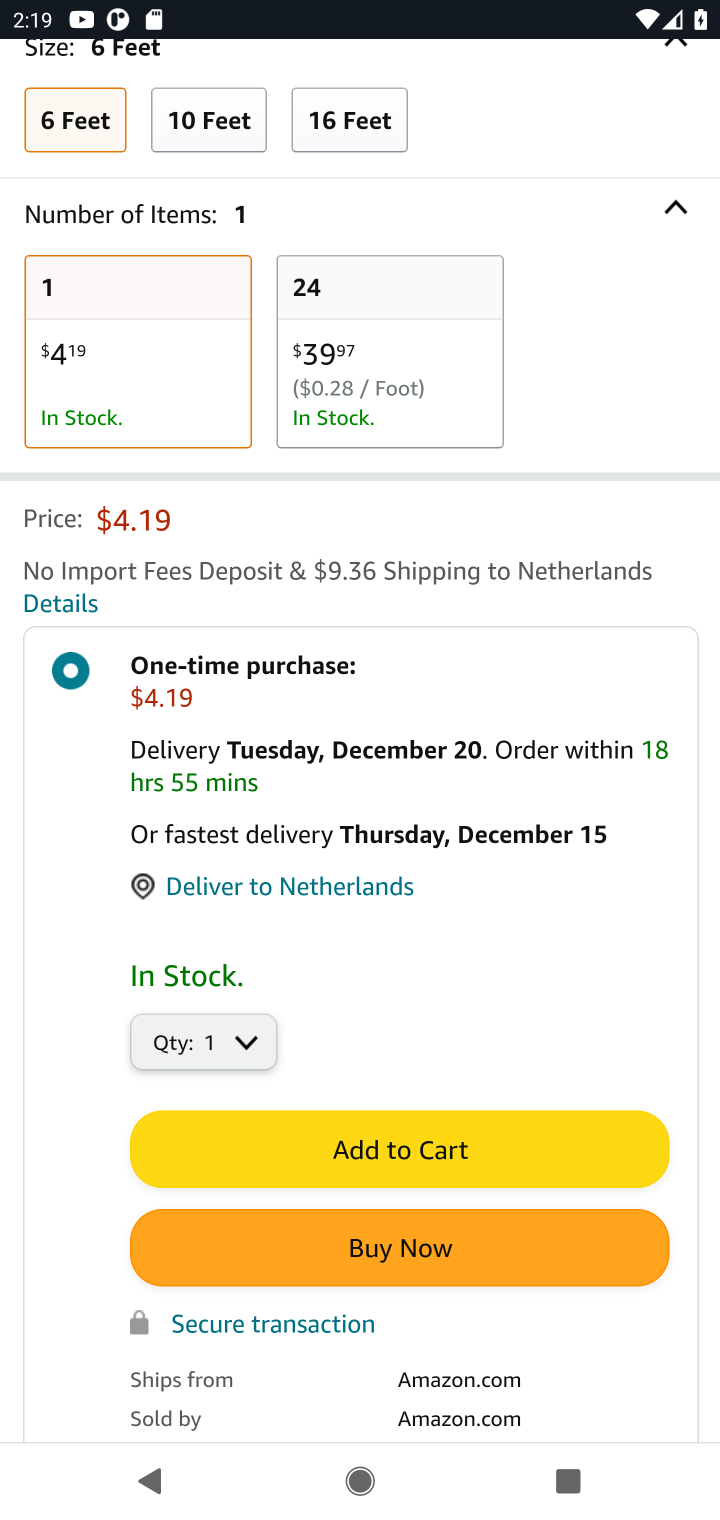
Step 25: click (464, 1147)
Your task to perform on an android device: Add "usb-a" to the cart on amazon, then select checkout. Image 26: 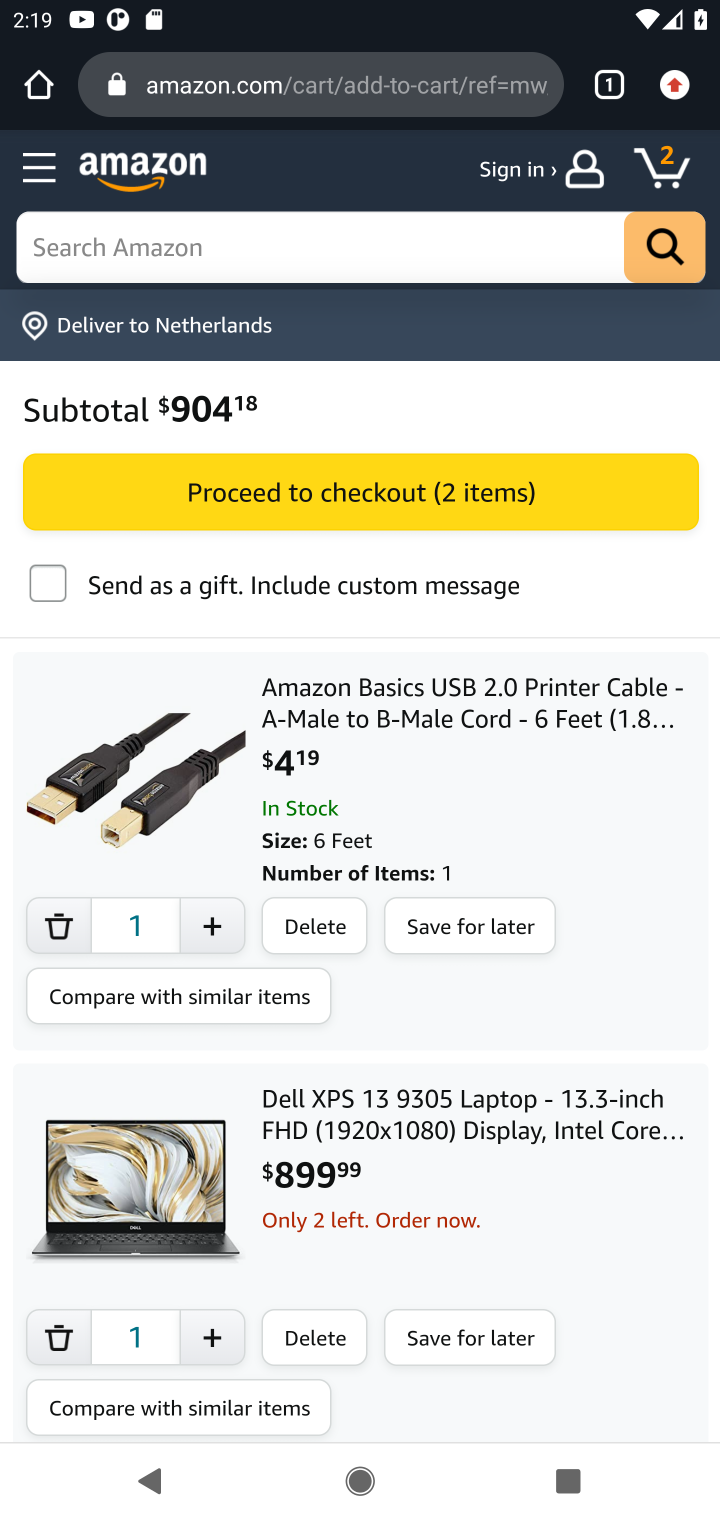
Step 26: click (371, 479)
Your task to perform on an android device: Add "usb-a" to the cart on amazon, then select checkout. Image 27: 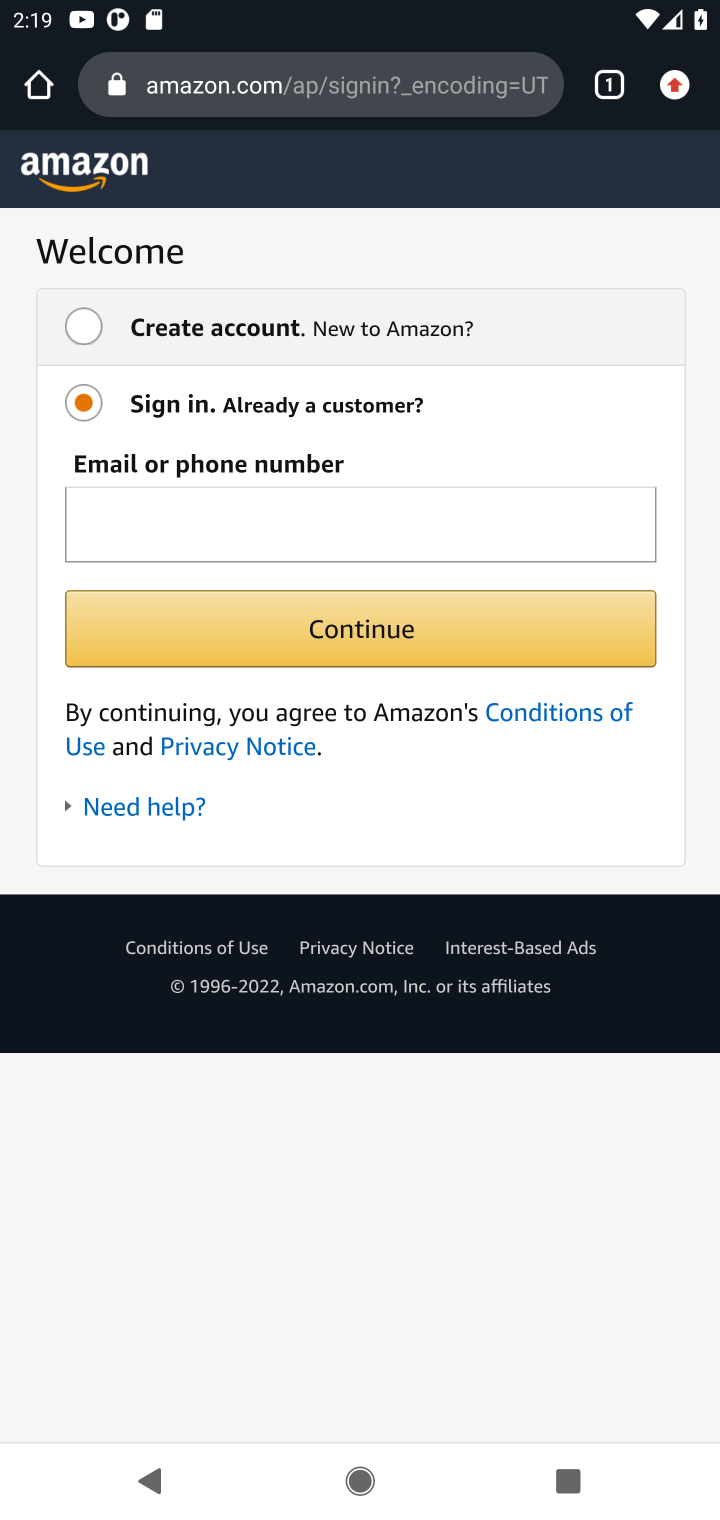
Step 27: task complete